Your task to perform on an android device: Check the news Image 0: 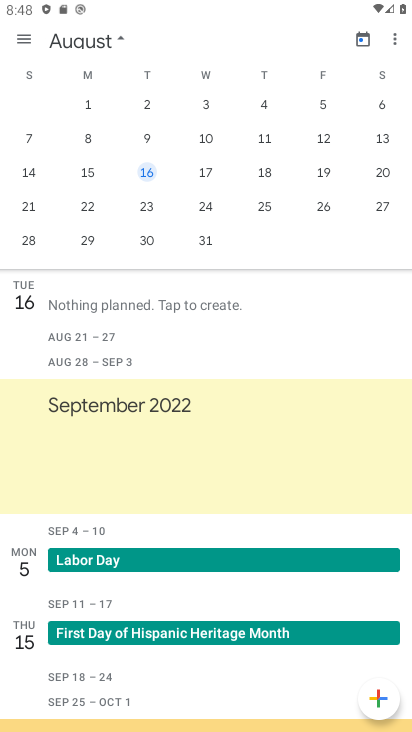
Step 0: press back button
Your task to perform on an android device: Check the news Image 1: 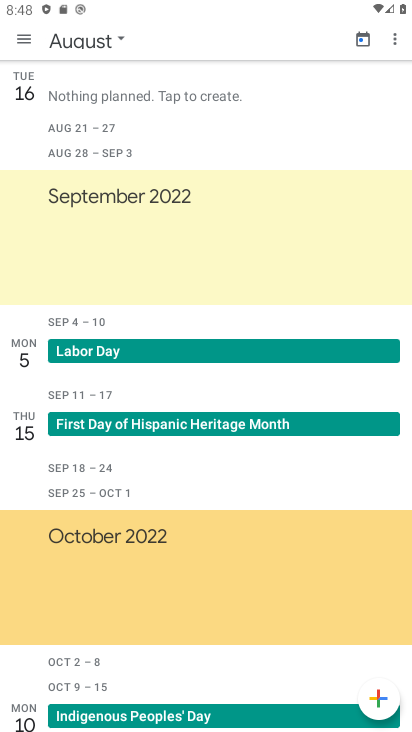
Step 1: press home button
Your task to perform on an android device: Check the news Image 2: 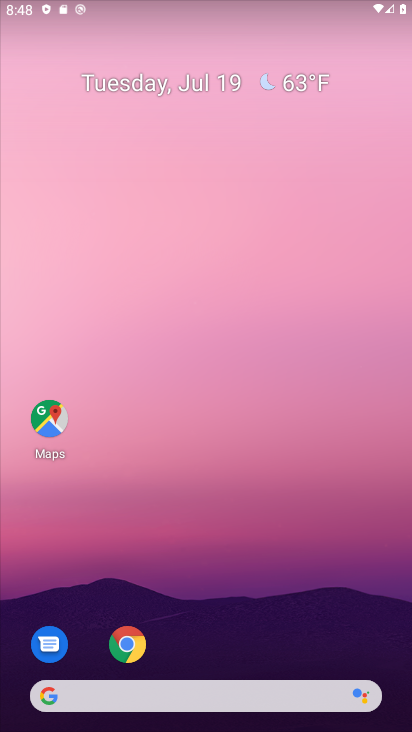
Step 2: drag from (252, 667) to (178, 100)
Your task to perform on an android device: Check the news Image 3: 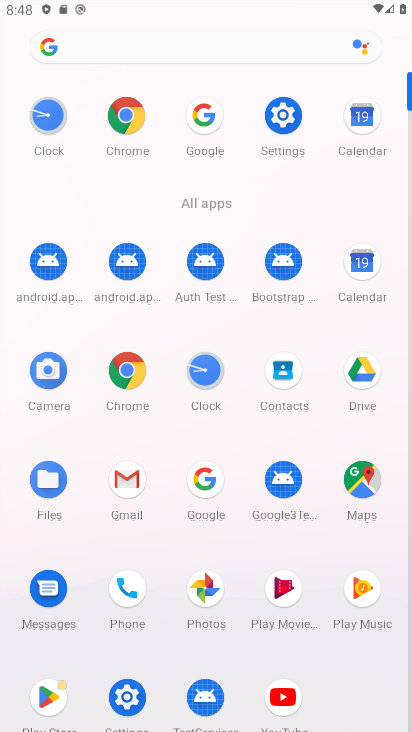
Step 3: click (127, 114)
Your task to perform on an android device: Check the news Image 4: 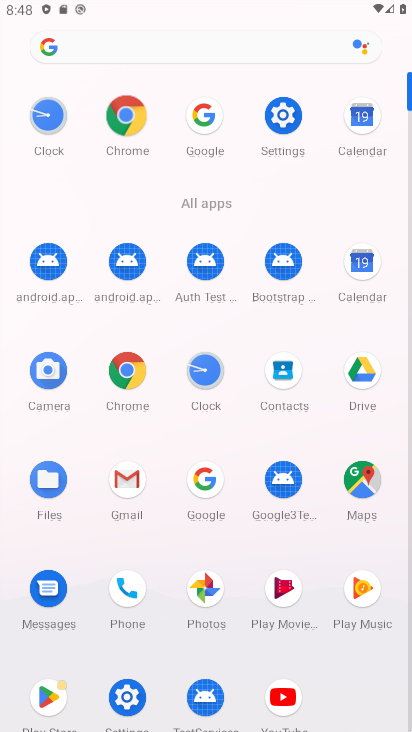
Step 4: click (127, 114)
Your task to perform on an android device: Check the news Image 5: 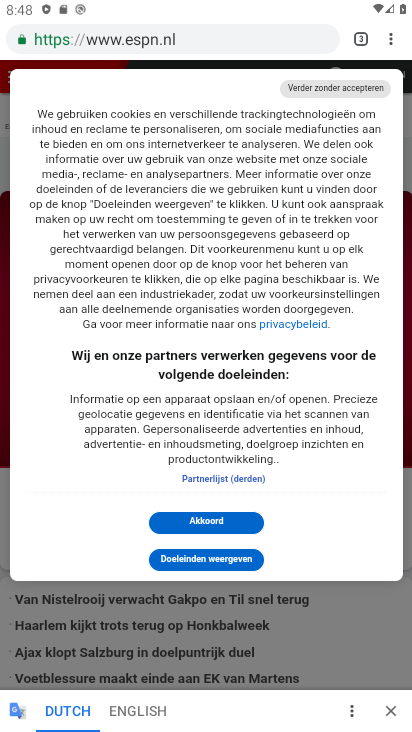
Step 5: drag from (391, 40) to (230, 143)
Your task to perform on an android device: Check the news Image 6: 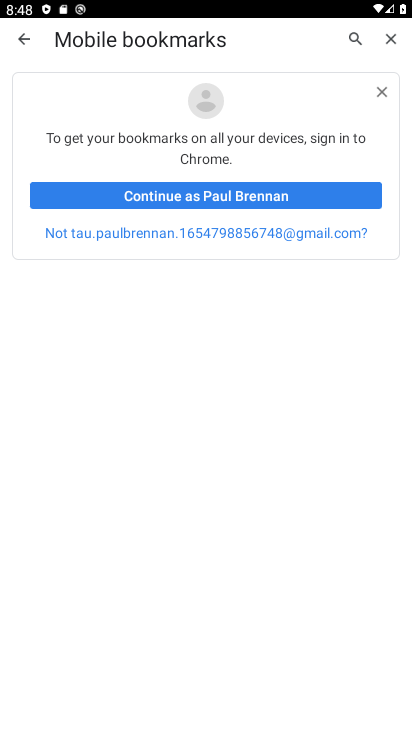
Step 6: drag from (176, 488) to (146, 113)
Your task to perform on an android device: Check the news Image 7: 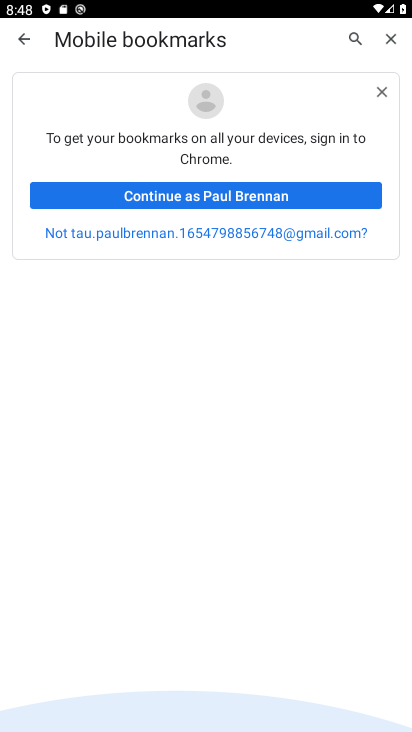
Step 7: drag from (178, 413) to (157, 51)
Your task to perform on an android device: Check the news Image 8: 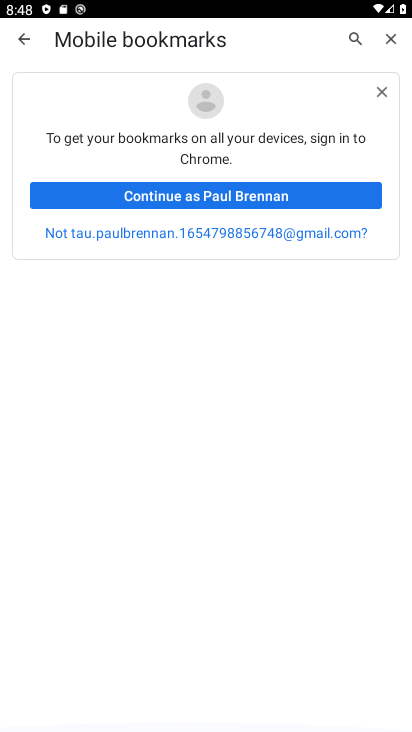
Step 8: click (26, 44)
Your task to perform on an android device: Check the news Image 9: 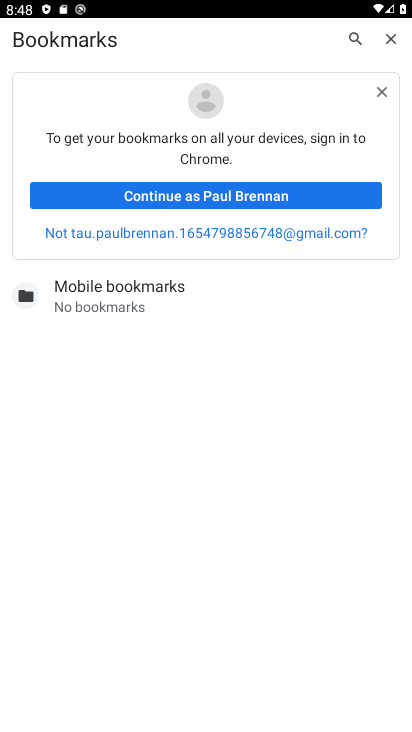
Step 9: click (387, 40)
Your task to perform on an android device: Check the news Image 10: 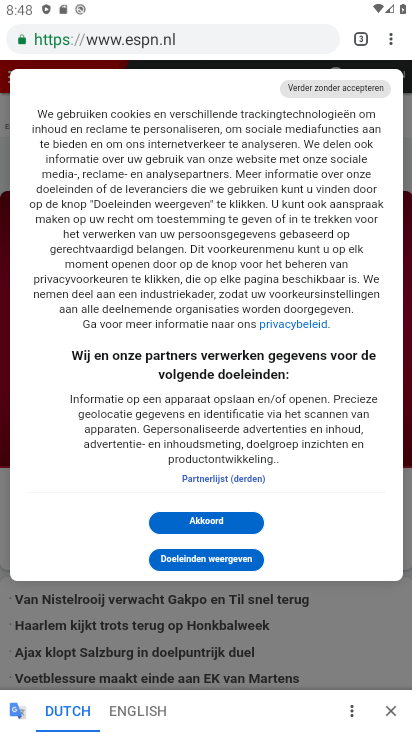
Step 10: task complete